Your task to perform on an android device: Search for shimano brake pads on Walmart Image 0: 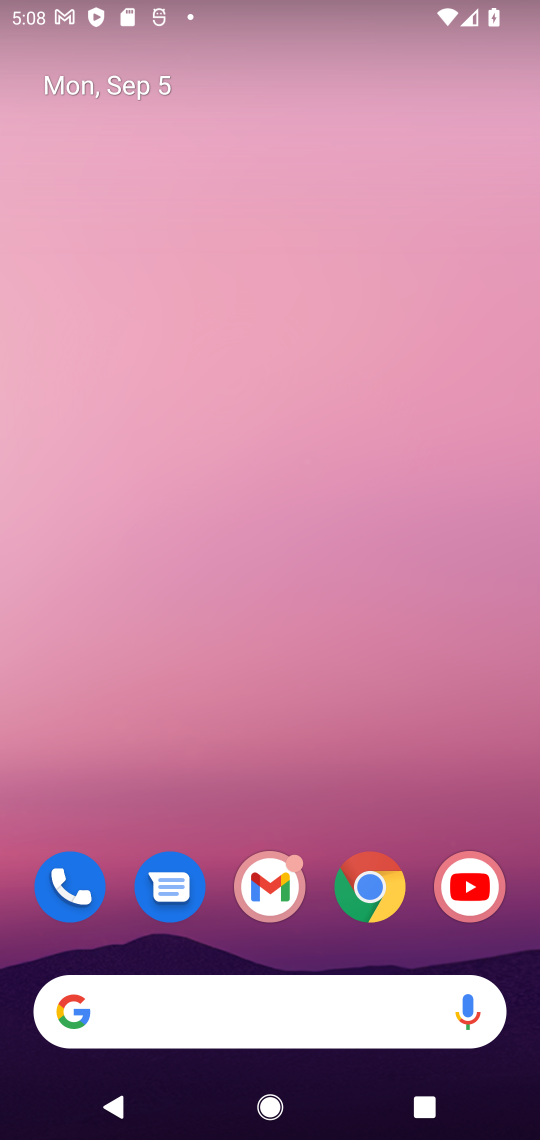
Step 0: drag from (355, 73) to (365, 6)
Your task to perform on an android device: Search for shimano brake pads on Walmart Image 1: 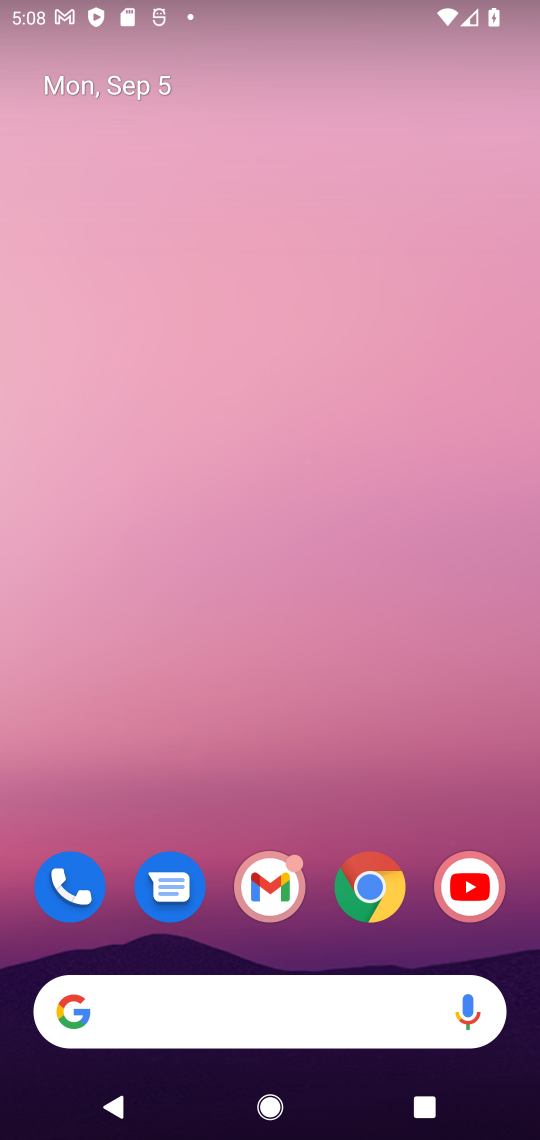
Step 1: drag from (367, 711) to (202, 97)
Your task to perform on an android device: Search for shimano brake pads on Walmart Image 2: 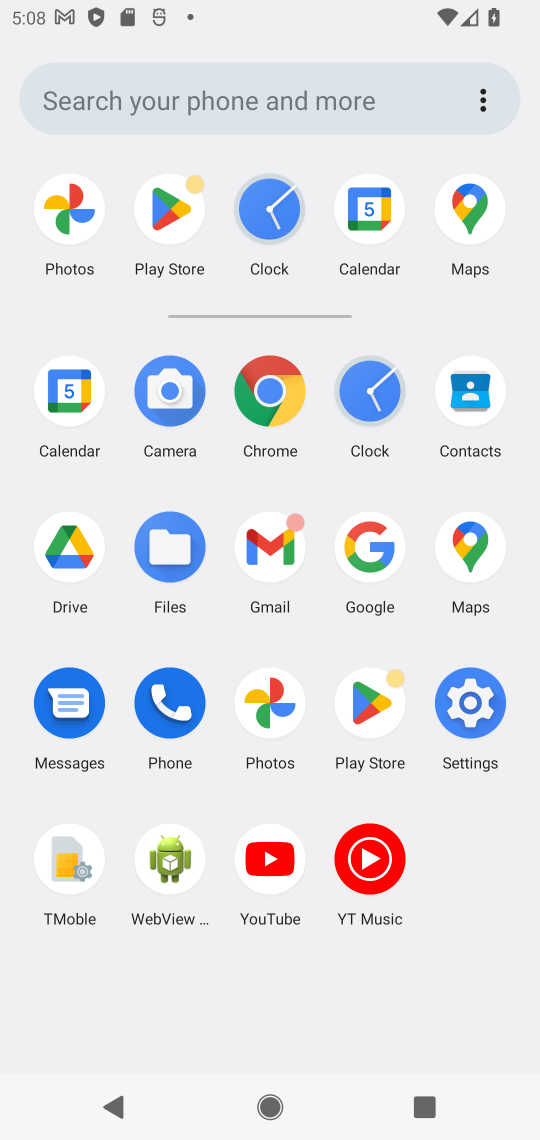
Step 2: click (275, 387)
Your task to perform on an android device: Search for shimano brake pads on Walmart Image 3: 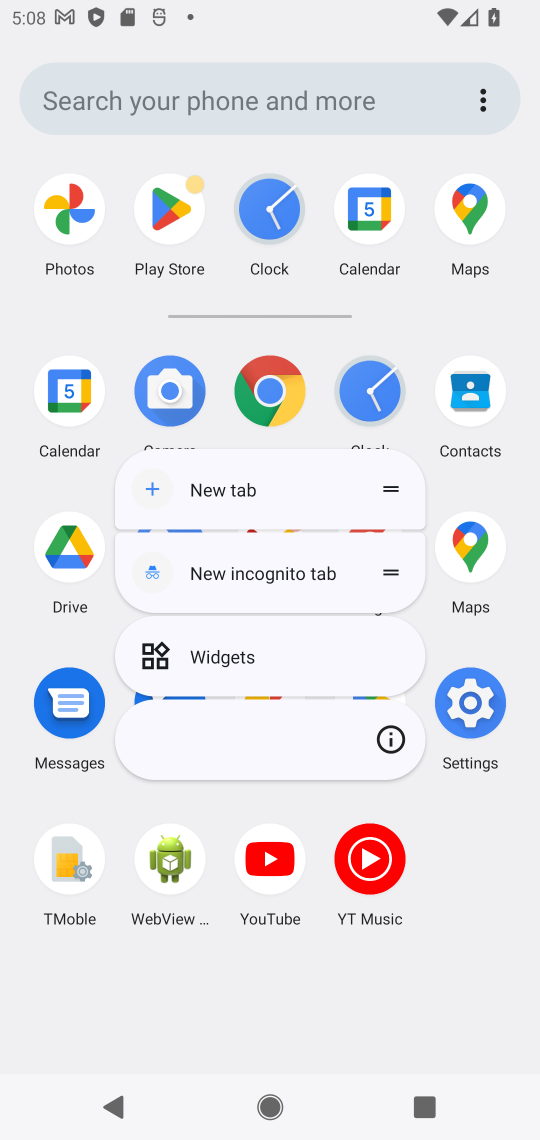
Step 3: click (275, 387)
Your task to perform on an android device: Search for shimano brake pads on Walmart Image 4: 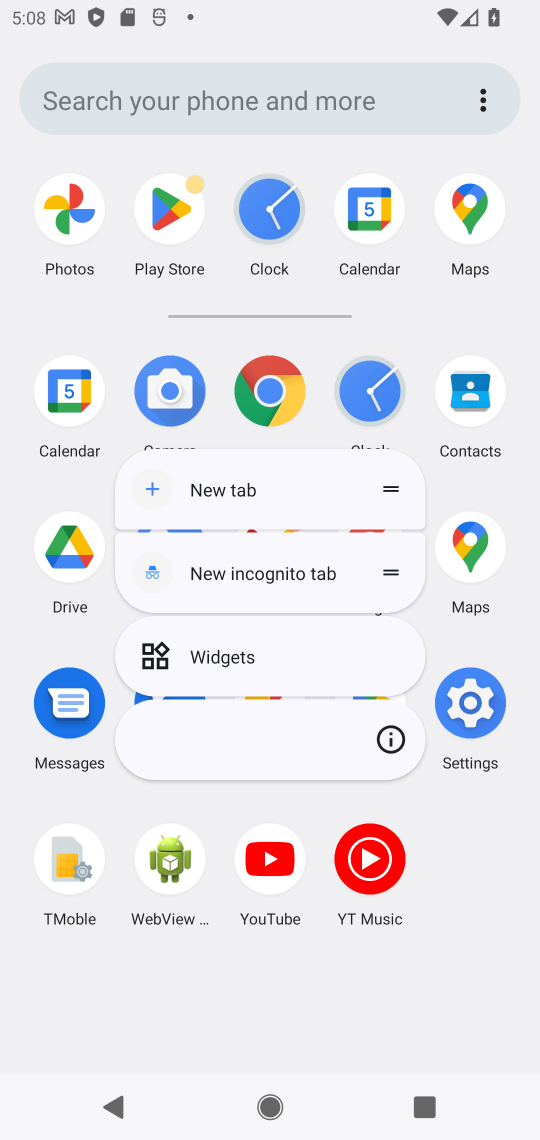
Step 4: click (267, 389)
Your task to perform on an android device: Search for shimano brake pads on Walmart Image 5: 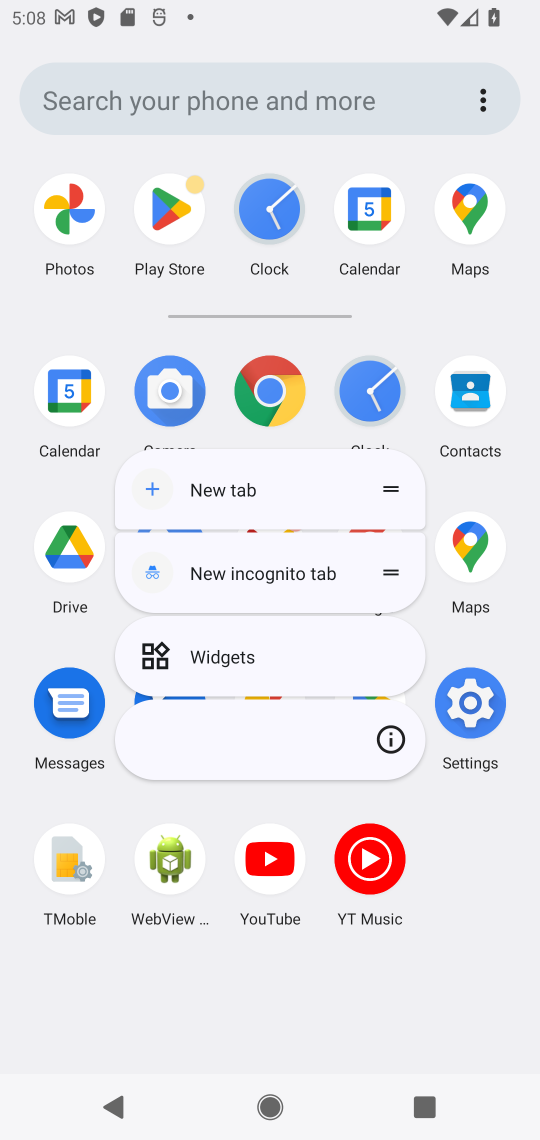
Step 5: click (267, 389)
Your task to perform on an android device: Search for shimano brake pads on Walmart Image 6: 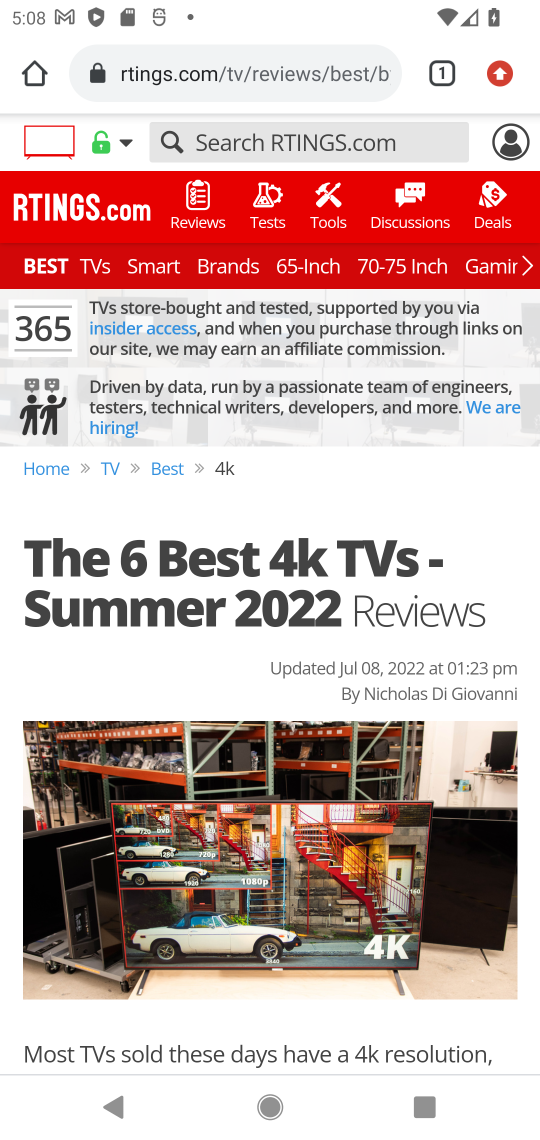
Step 6: click (343, 68)
Your task to perform on an android device: Search for shimano brake pads on Walmart Image 7: 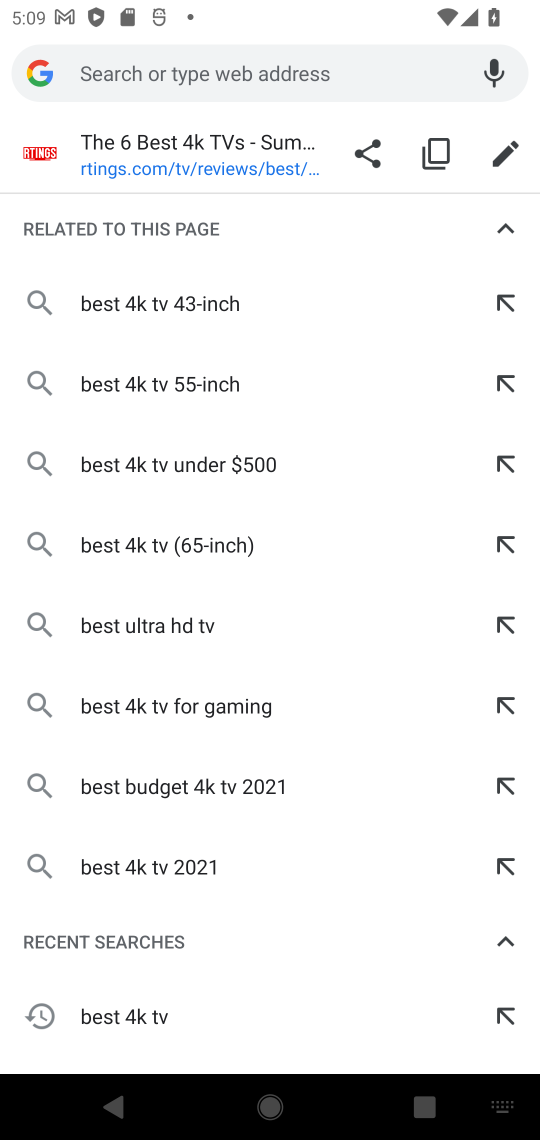
Step 7: type "shimano brake pads on Walmart"
Your task to perform on an android device: Search for shimano brake pads on Walmart Image 8: 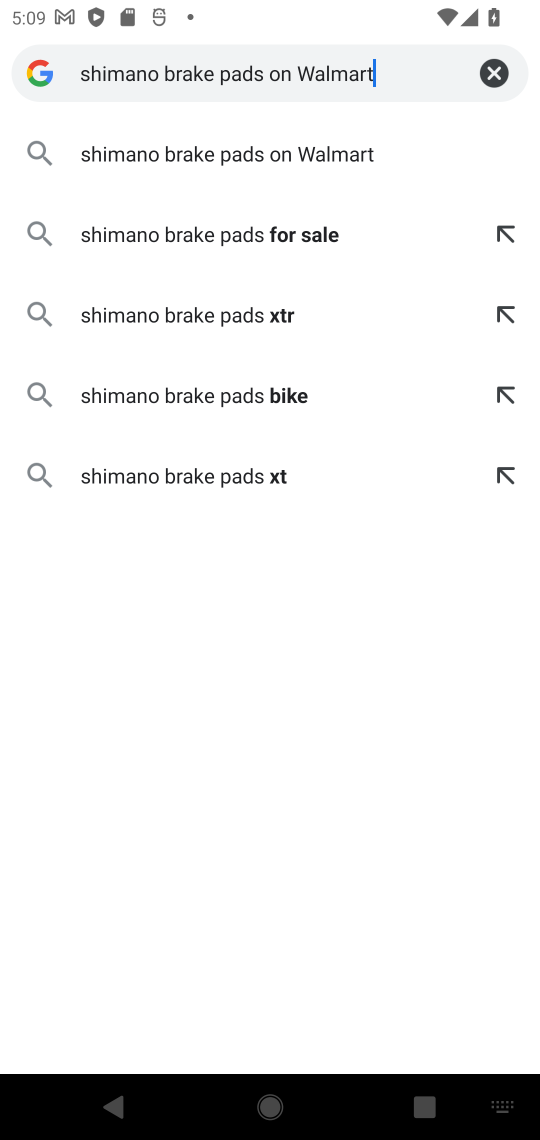
Step 8: press enter
Your task to perform on an android device: Search for shimano brake pads on Walmart Image 9: 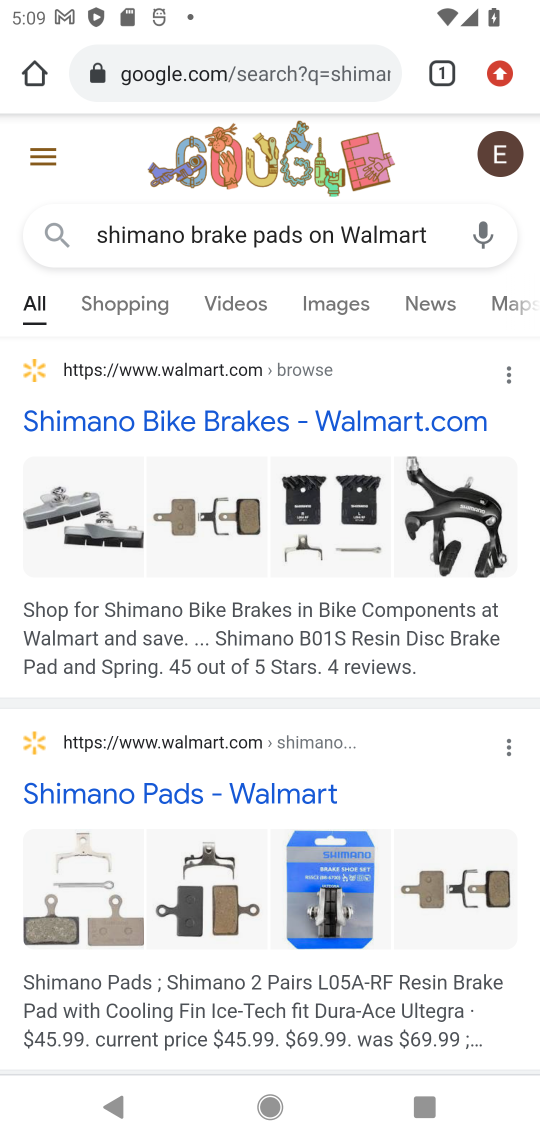
Step 9: click (407, 425)
Your task to perform on an android device: Search for shimano brake pads on Walmart Image 10: 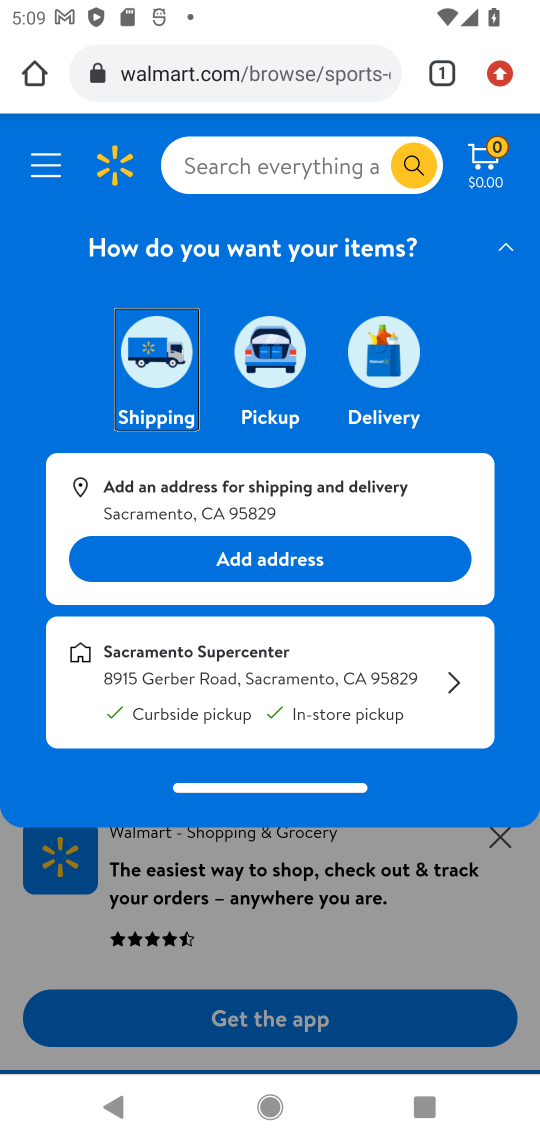
Step 10: click (447, 878)
Your task to perform on an android device: Search for shimano brake pads on Walmart Image 11: 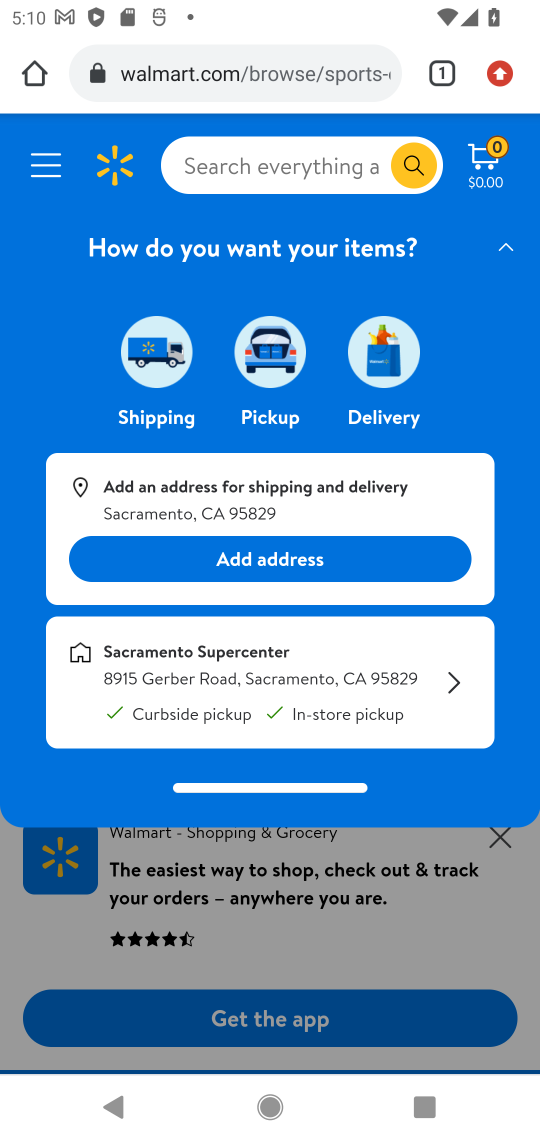
Step 11: click (511, 247)
Your task to perform on an android device: Search for shimano brake pads on Walmart Image 12: 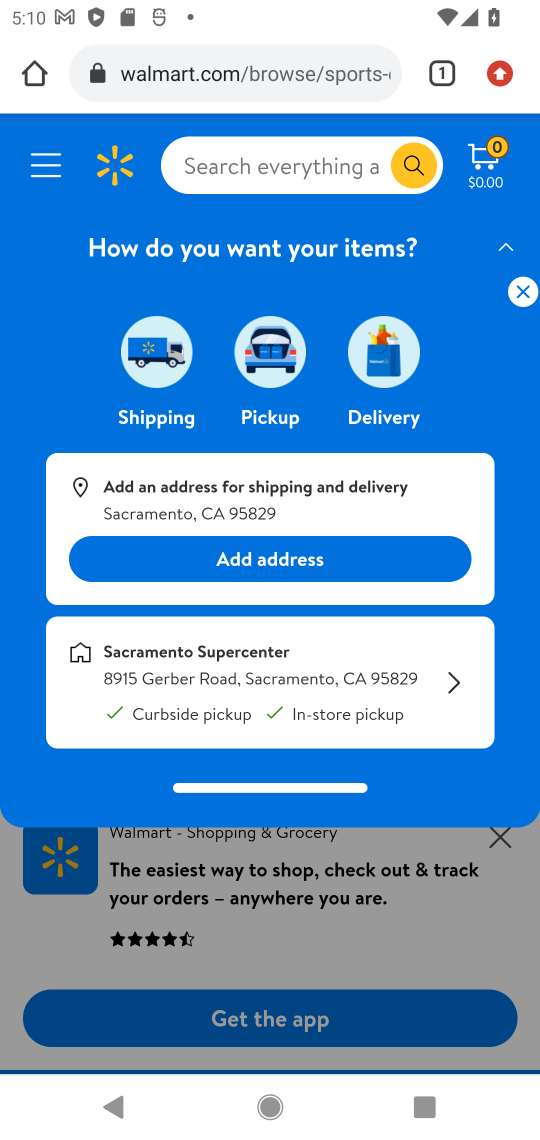
Step 12: click (526, 296)
Your task to perform on an android device: Search for shimano brake pads on Walmart Image 13: 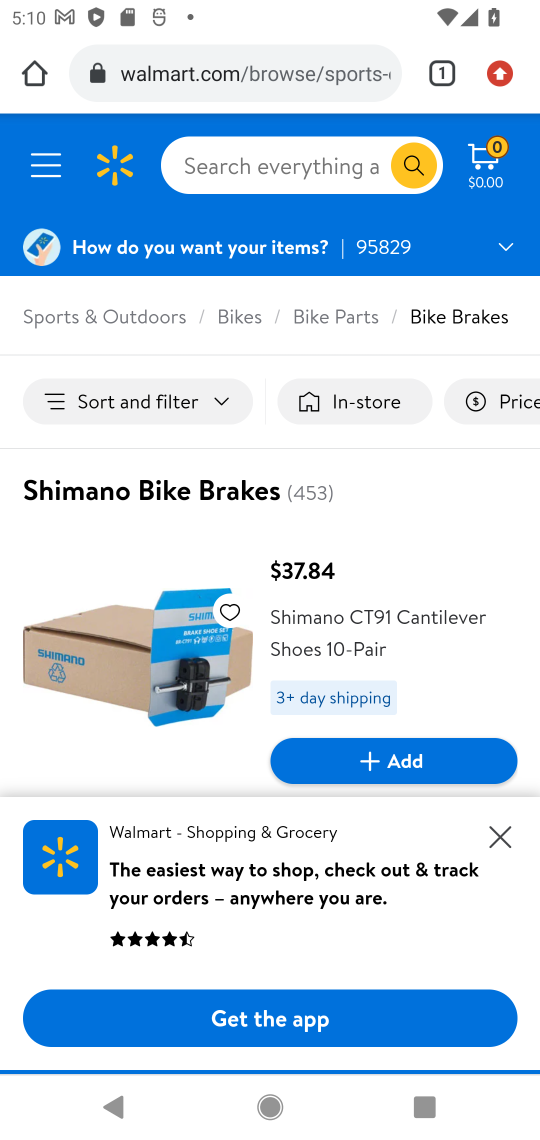
Step 13: click (451, 77)
Your task to perform on an android device: Search for shimano brake pads on Walmart Image 14: 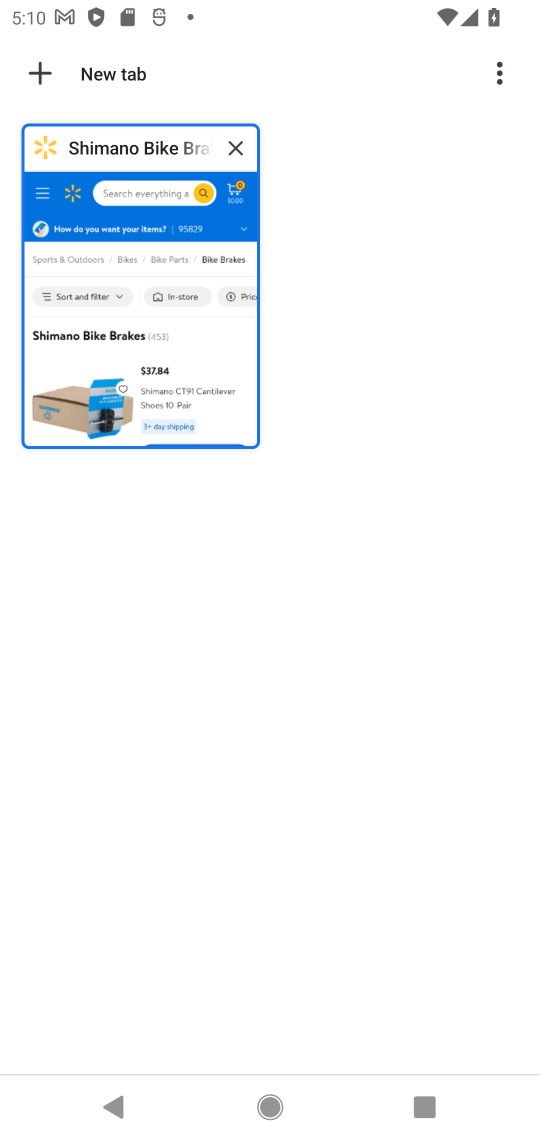
Step 14: task complete